Your task to perform on an android device: What's the weather? Image 0: 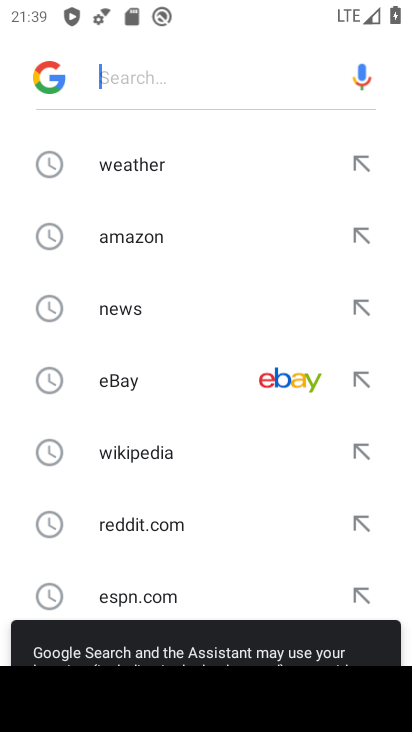
Step 0: press home button
Your task to perform on an android device: What's the weather? Image 1: 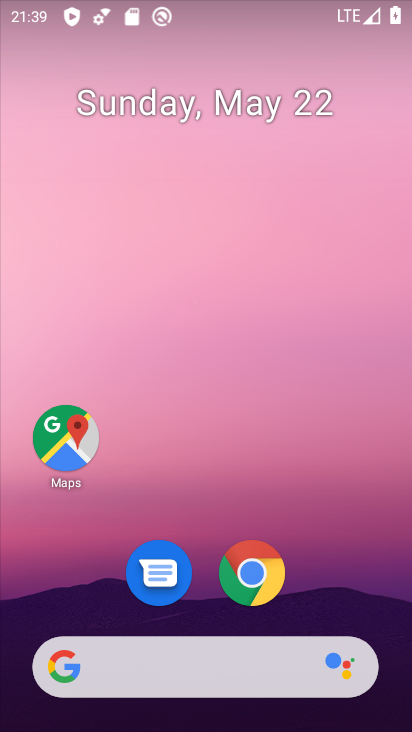
Step 1: click (263, 585)
Your task to perform on an android device: What's the weather? Image 2: 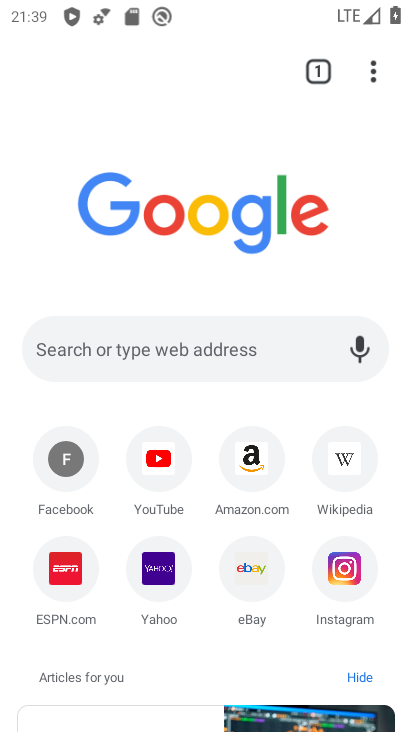
Step 2: click (217, 354)
Your task to perform on an android device: What's the weather? Image 3: 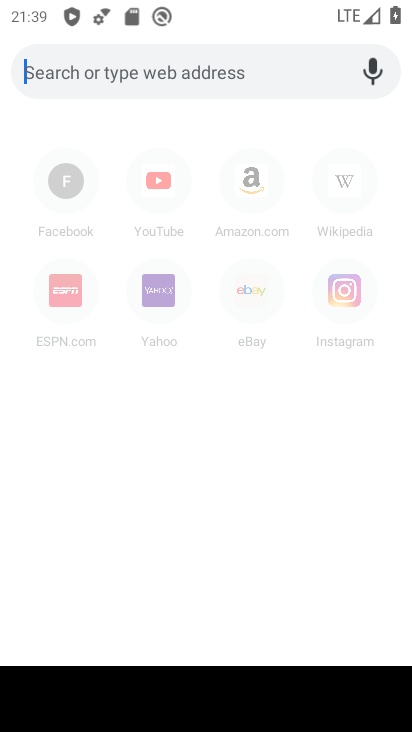
Step 3: type "What's the weather?"
Your task to perform on an android device: What's the weather? Image 4: 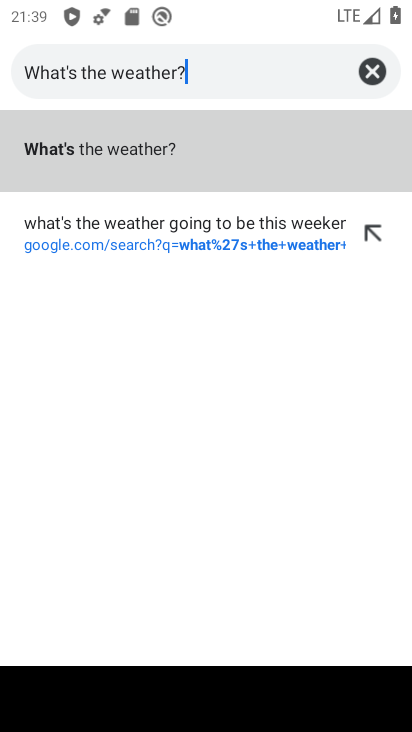
Step 4: click (144, 133)
Your task to perform on an android device: What's the weather? Image 5: 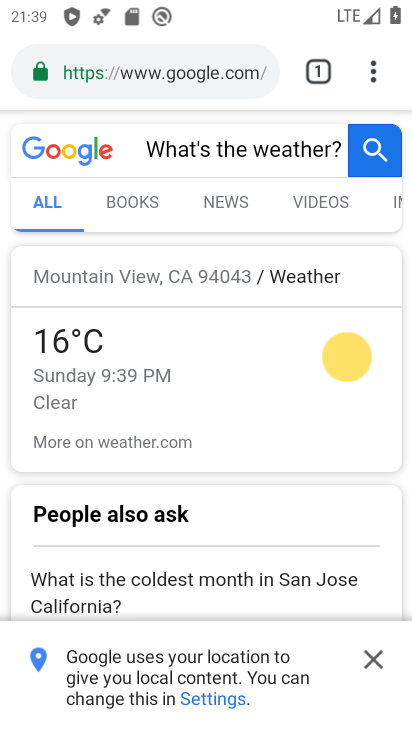
Step 5: task complete